Your task to perform on an android device: turn off airplane mode Image 0: 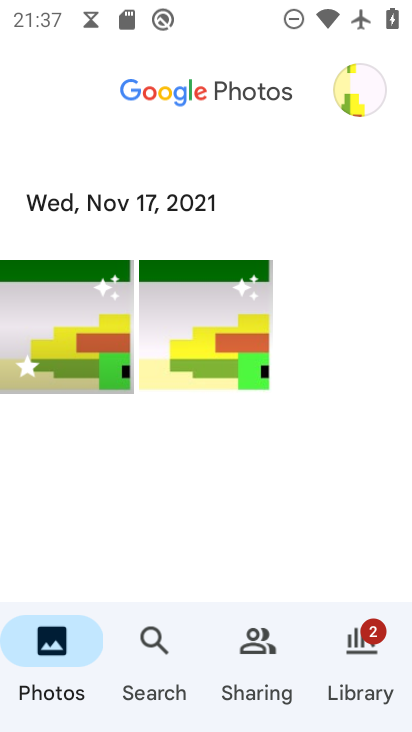
Step 0: press home button
Your task to perform on an android device: turn off airplane mode Image 1: 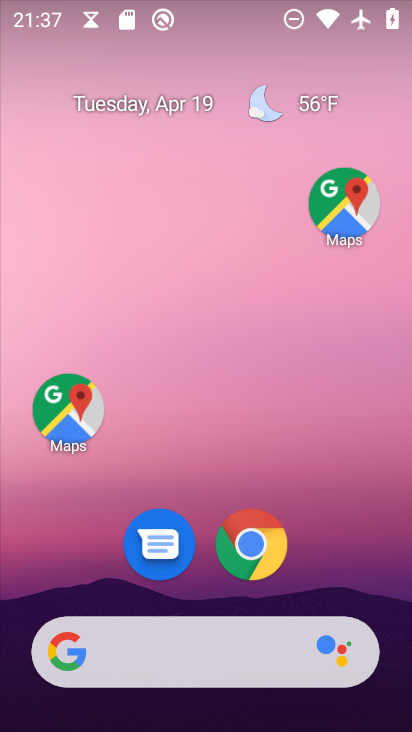
Step 1: drag from (183, 647) to (346, 102)
Your task to perform on an android device: turn off airplane mode Image 2: 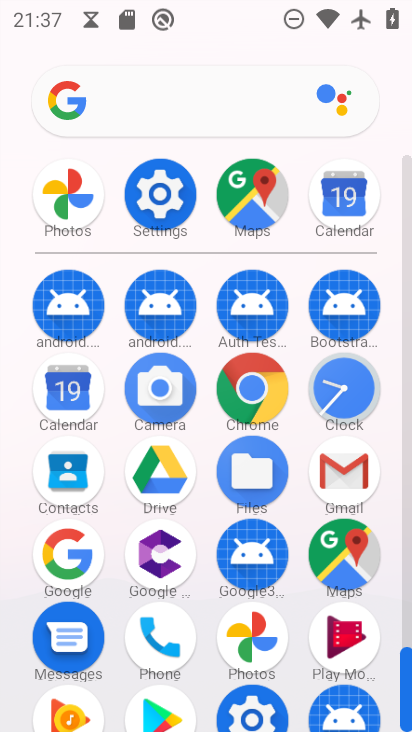
Step 2: click (170, 196)
Your task to perform on an android device: turn off airplane mode Image 3: 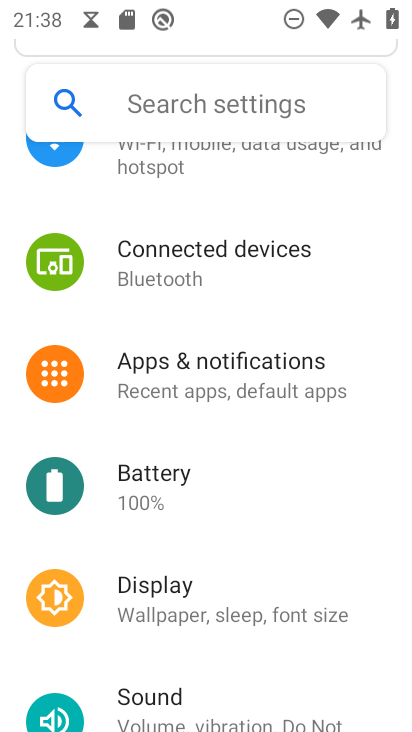
Step 3: drag from (323, 189) to (305, 465)
Your task to perform on an android device: turn off airplane mode Image 4: 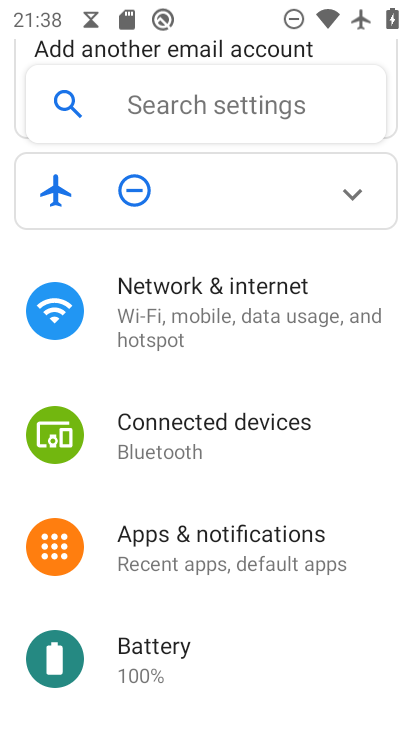
Step 4: click (253, 293)
Your task to perform on an android device: turn off airplane mode Image 5: 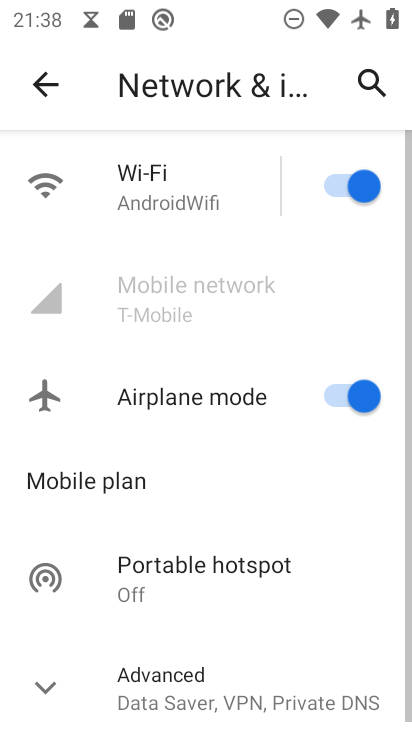
Step 5: click (341, 387)
Your task to perform on an android device: turn off airplane mode Image 6: 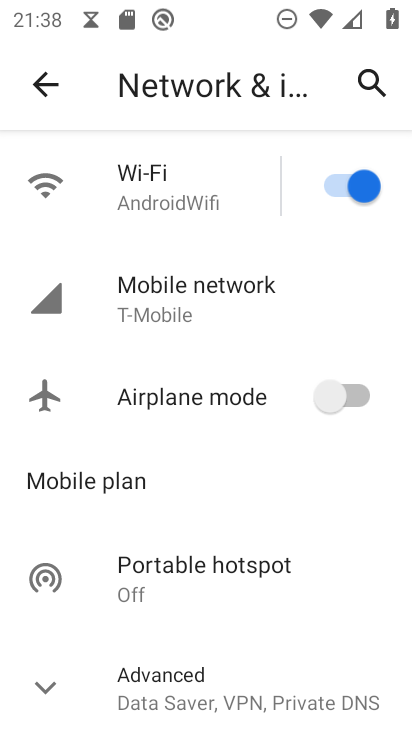
Step 6: task complete